Your task to perform on an android device: Go to Maps Image 0: 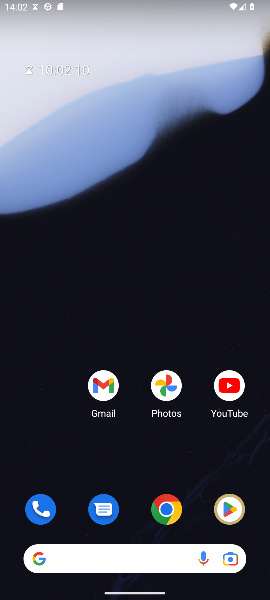
Step 0: press home button
Your task to perform on an android device: Go to Maps Image 1: 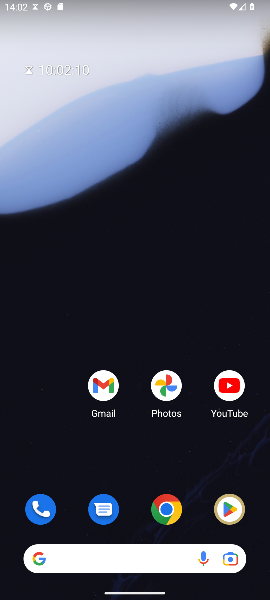
Step 1: drag from (159, 421) to (212, 4)
Your task to perform on an android device: Go to Maps Image 2: 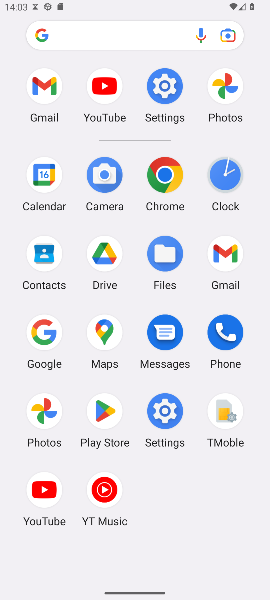
Step 2: click (103, 331)
Your task to perform on an android device: Go to Maps Image 3: 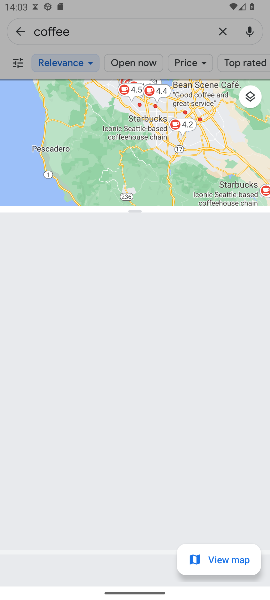
Step 3: click (221, 27)
Your task to perform on an android device: Go to Maps Image 4: 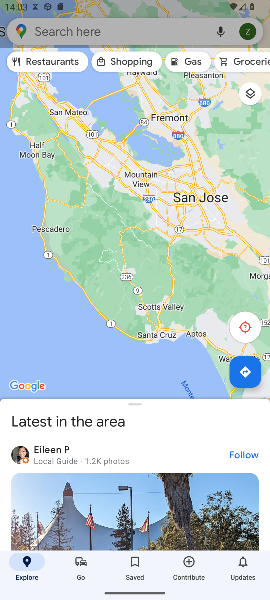
Step 4: task complete